Your task to perform on an android device: Toggle the flashlight Image 0: 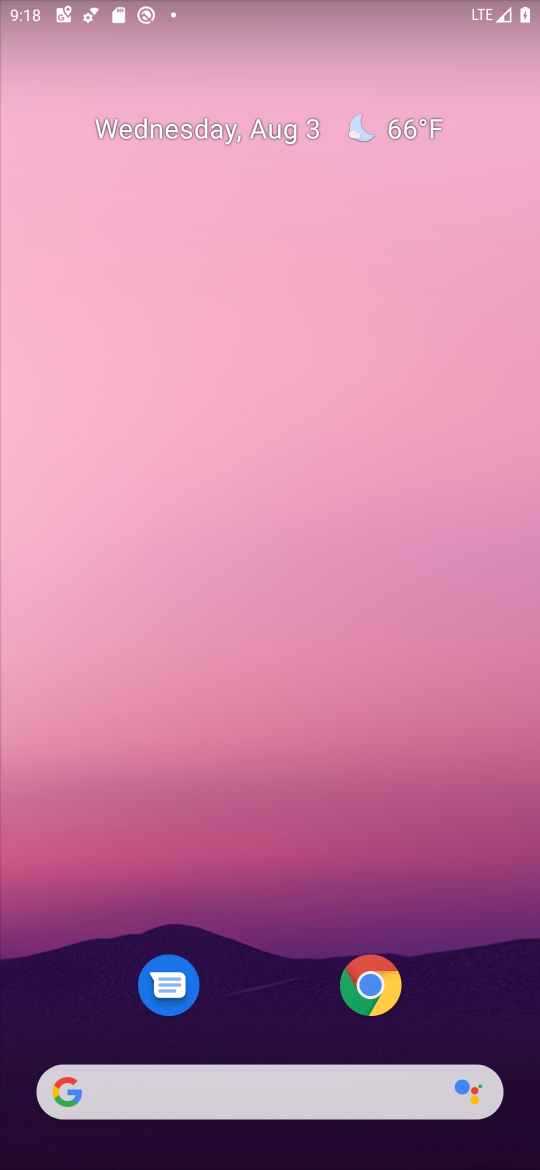
Step 0: drag from (268, 995) to (316, 263)
Your task to perform on an android device: Toggle the flashlight Image 1: 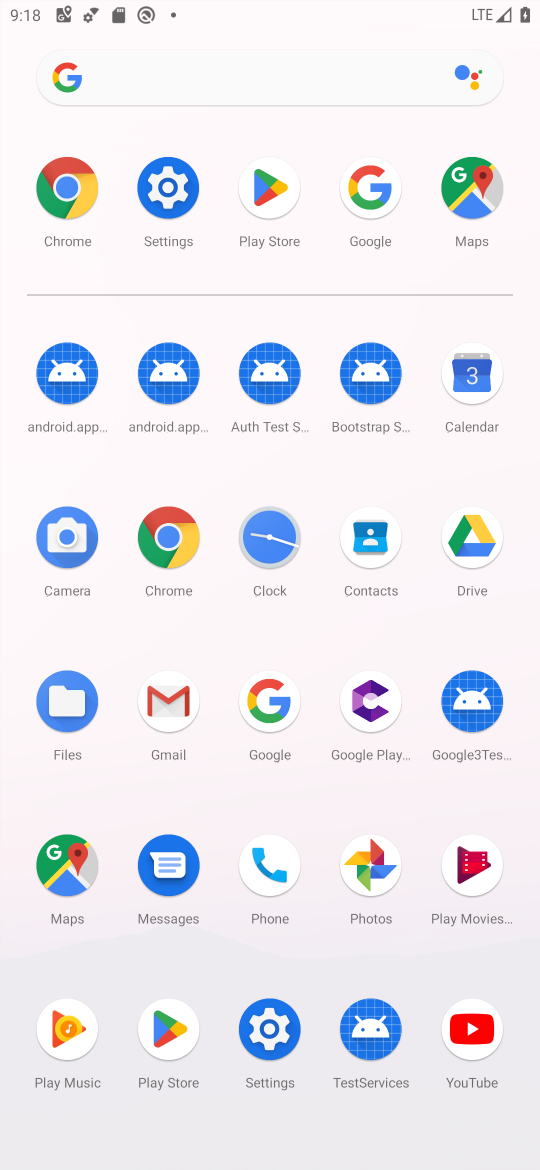
Step 1: click (176, 205)
Your task to perform on an android device: Toggle the flashlight Image 2: 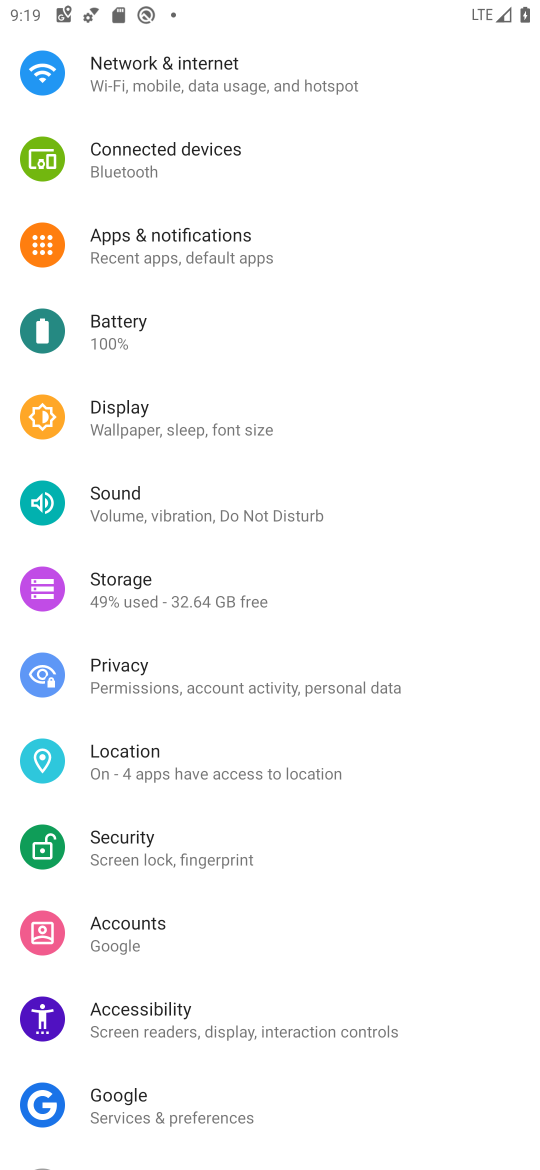
Step 2: task complete